Your task to perform on an android device: change the clock display to analog Image 0: 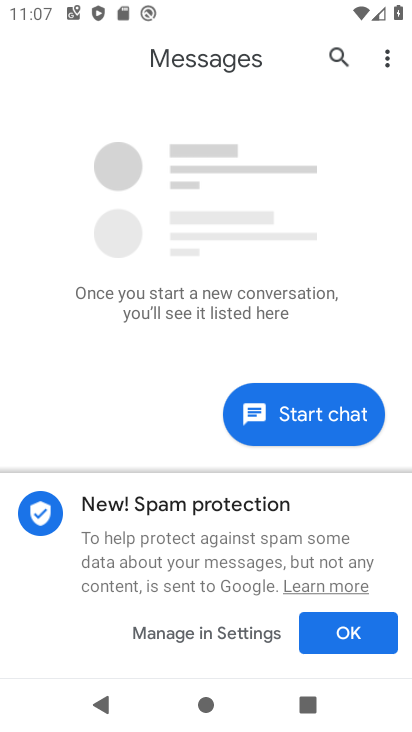
Step 0: press home button
Your task to perform on an android device: change the clock display to analog Image 1: 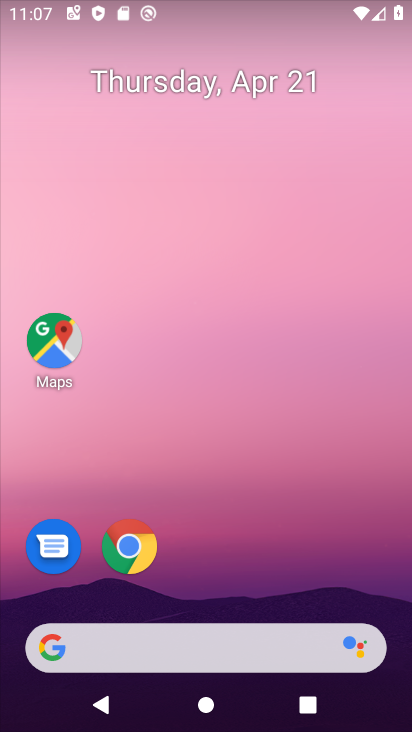
Step 1: drag from (250, 487) to (260, 105)
Your task to perform on an android device: change the clock display to analog Image 2: 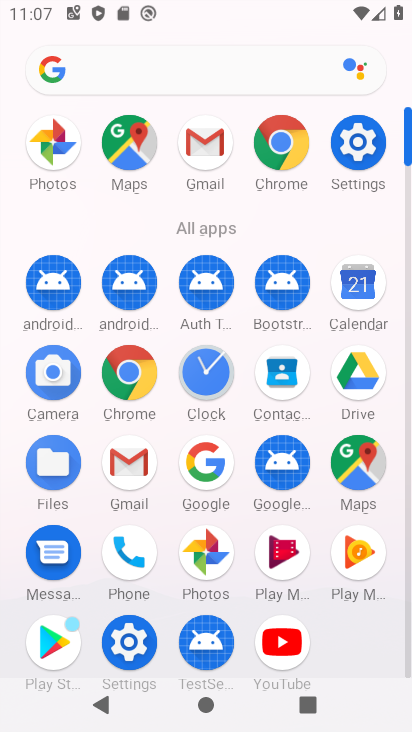
Step 2: click (208, 374)
Your task to perform on an android device: change the clock display to analog Image 3: 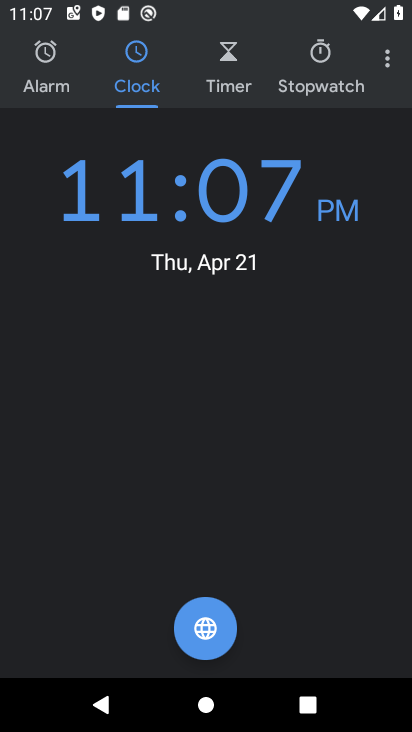
Step 3: click (385, 63)
Your task to perform on an android device: change the clock display to analog Image 4: 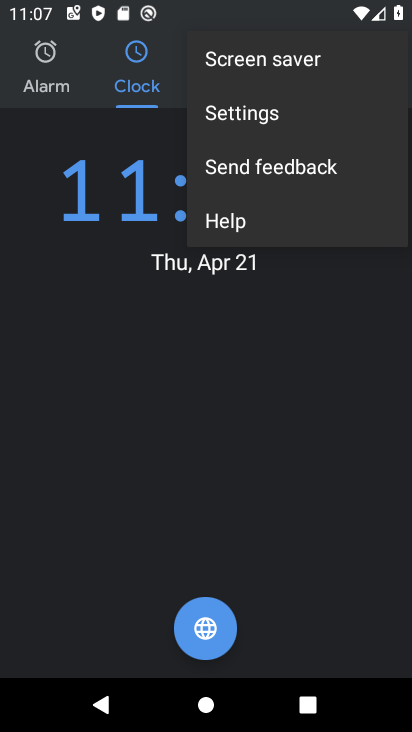
Step 4: click (235, 127)
Your task to perform on an android device: change the clock display to analog Image 5: 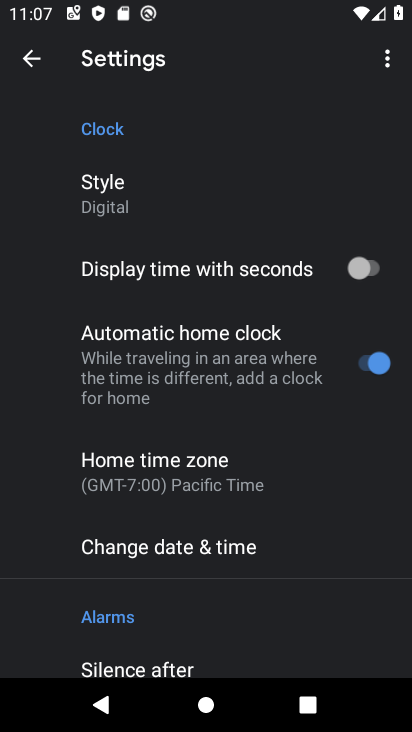
Step 5: click (153, 192)
Your task to perform on an android device: change the clock display to analog Image 6: 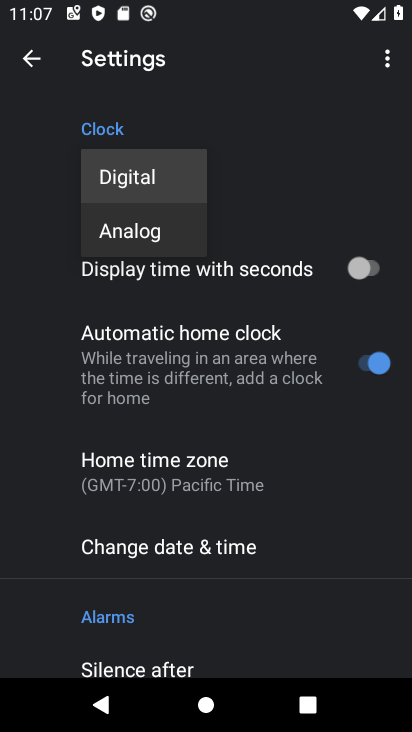
Step 6: click (134, 231)
Your task to perform on an android device: change the clock display to analog Image 7: 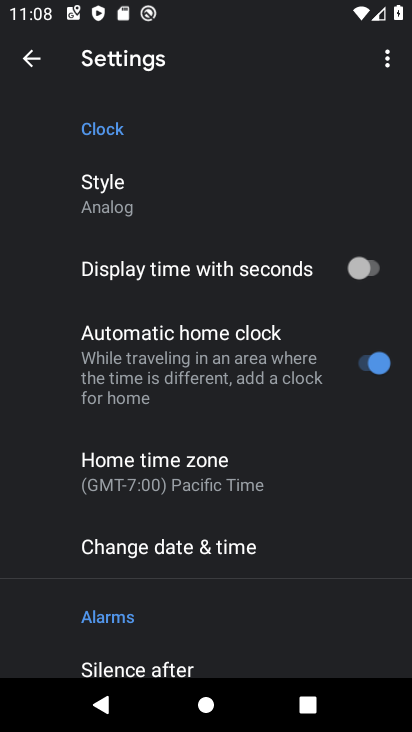
Step 7: task complete